Your task to perform on an android device: open chrome and create a bookmark for the current page Image 0: 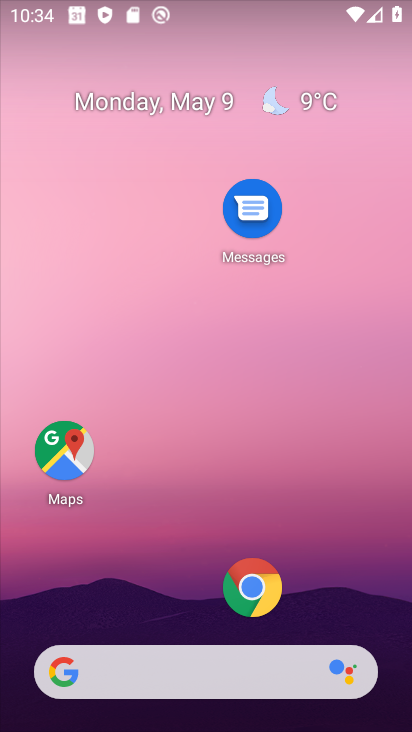
Step 0: click (230, 239)
Your task to perform on an android device: open chrome and create a bookmark for the current page Image 1: 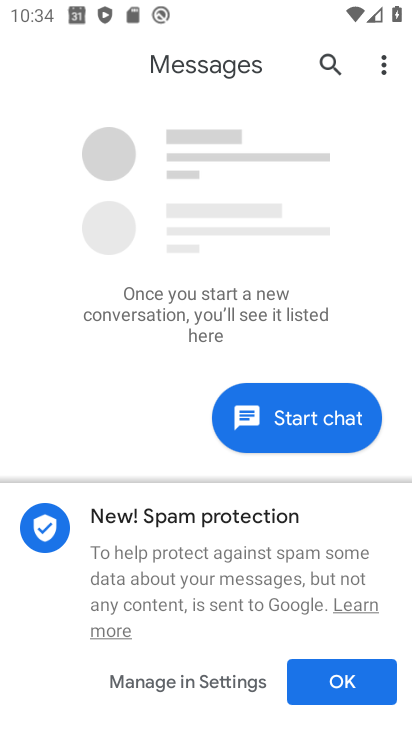
Step 1: press home button
Your task to perform on an android device: open chrome and create a bookmark for the current page Image 2: 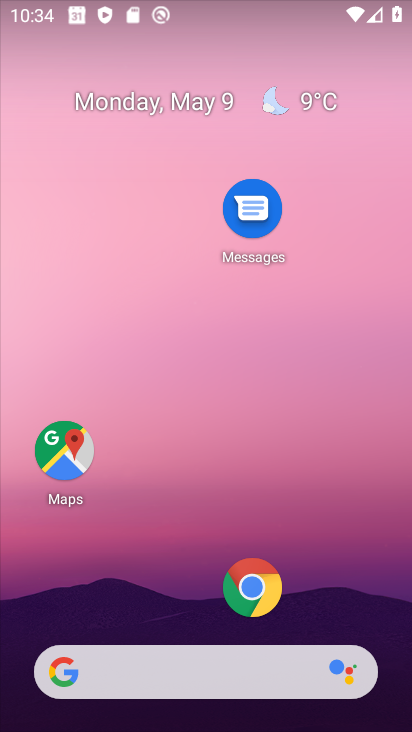
Step 2: click (246, 584)
Your task to perform on an android device: open chrome and create a bookmark for the current page Image 3: 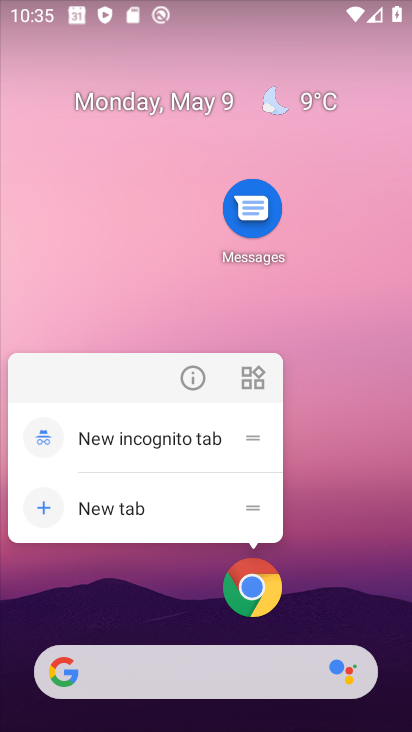
Step 3: click (188, 366)
Your task to perform on an android device: open chrome and create a bookmark for the current page Image 4: 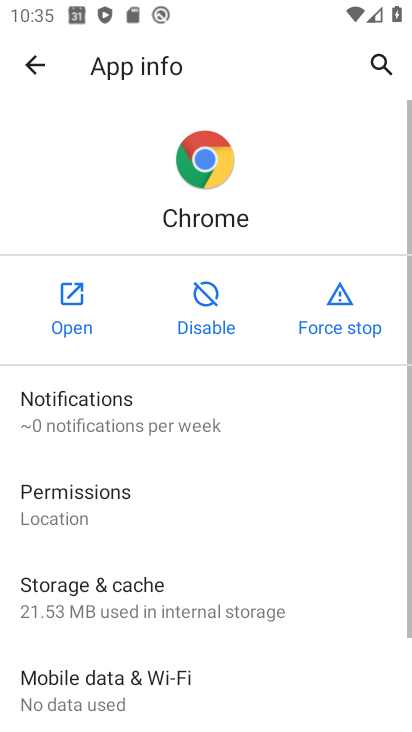
Step 4: click (73, 295)
Your task to perform on an android device: open chrome and create a bookmark for the current page Image 5: 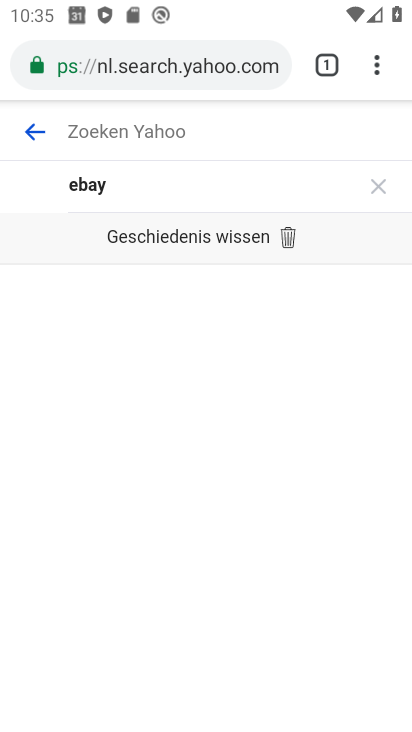
Step 5: click (369, 63)
Your task to perform on an android device: open chrome and create a bookmark for the current page Image 6: 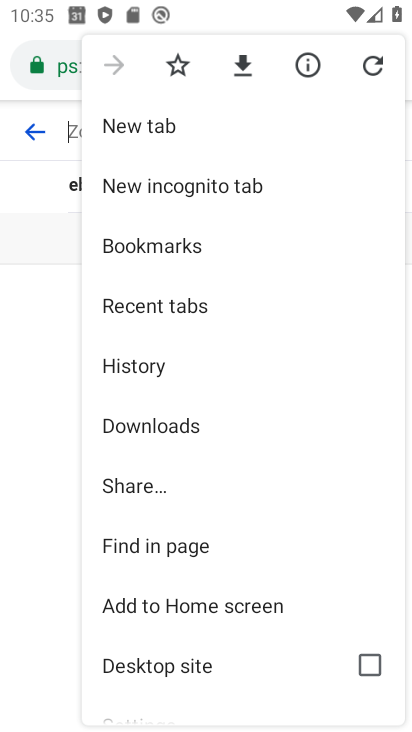
Step 6: click (201, 252)
Your task to perform on an android device: open chrome and create a bookmark for the current page Image 7: 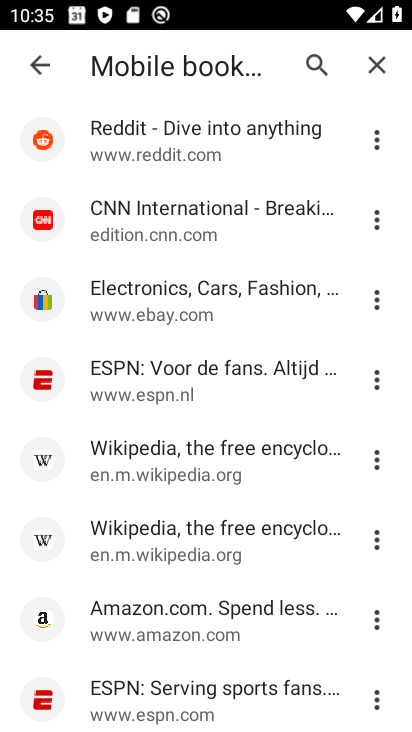
Step 7: click (374, 61)
Your task to perform on an android device: open chrome and create a bookmark for the current page Image 8: 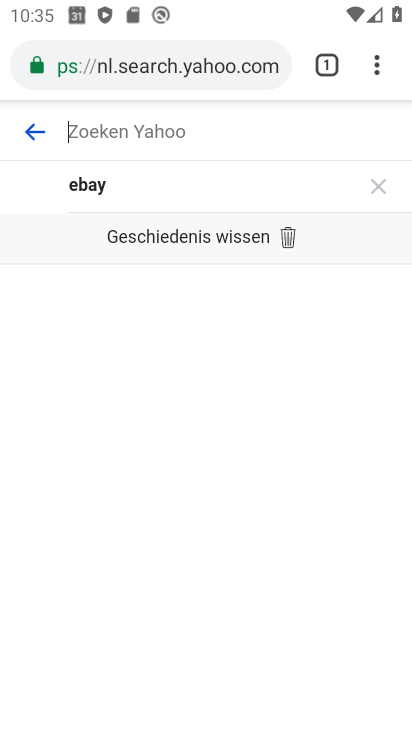
Step 8: click (35, 132)
Your task to perform on an android device: open chrome and create a bookmark for the current page Image 9: 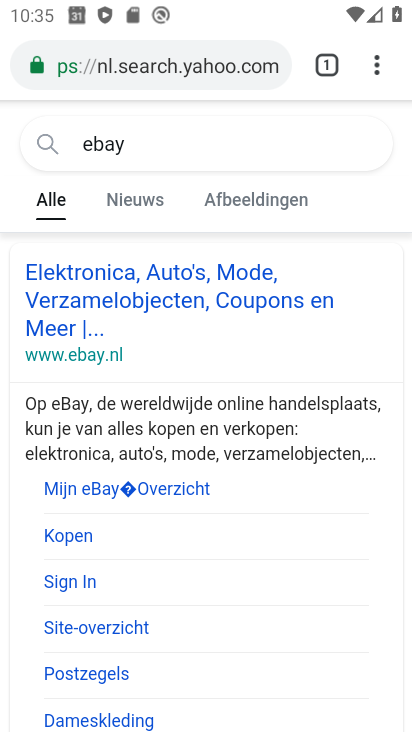
Step 9: click (375, 61)
Your task to perform on an android device: open chrome and create a bookmark for the current page Image 10: 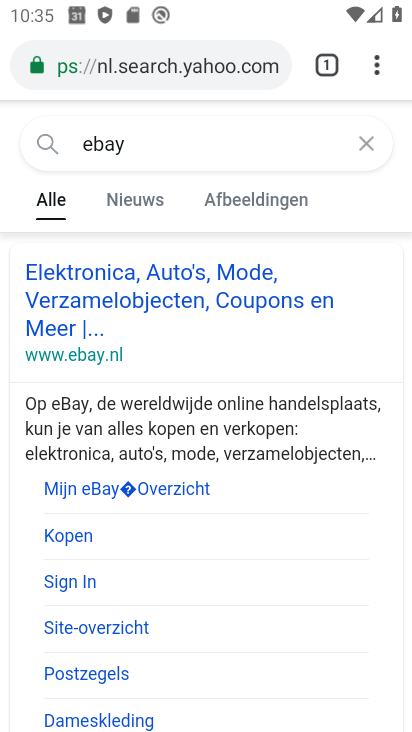
Step 10: click (376, 63)
Your task to perform on an android device: open chrome and create a bookmark for the current page Image 11: 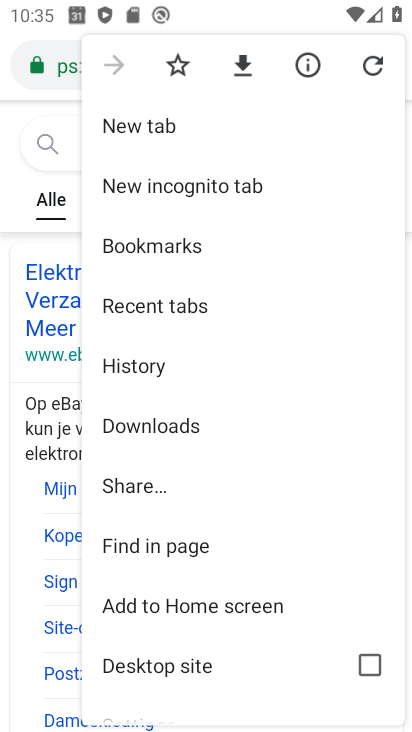
Step 11: click (170, 63)
Your task to perform on an android device: open chrome and create a bookmark for the current page Image 12: 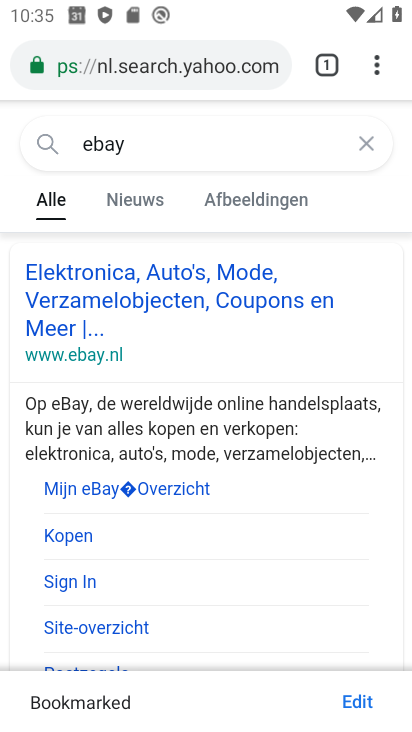
Step 12: task complete